Your task to perform on an android device: Go to sound settings Image 0: 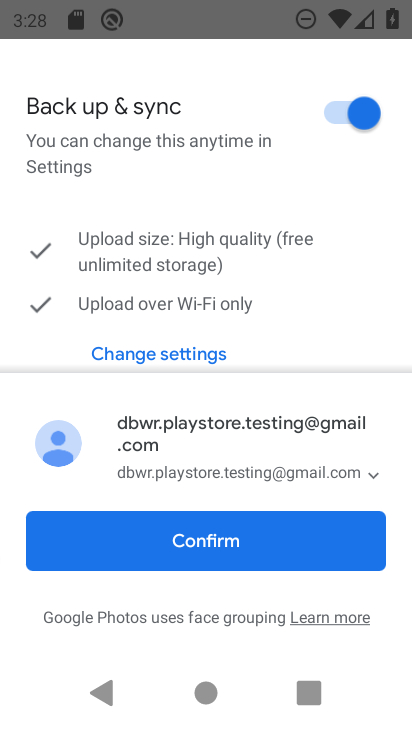
Step 0: press home button
Your task to perform on an android device: Go to sound settings Image 1: 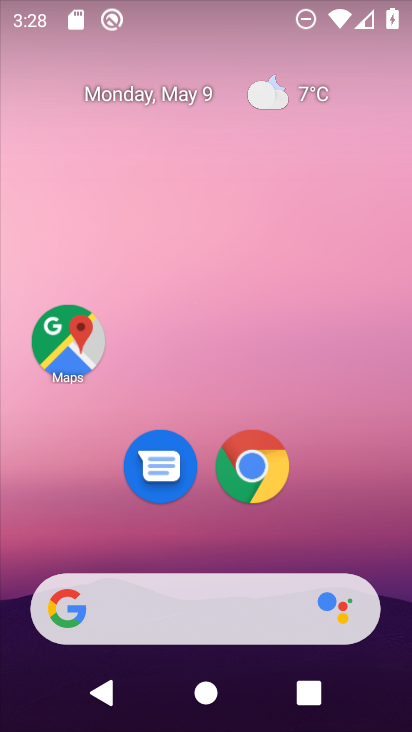
Step 1: drag from (6, 723) to (319, 189)
Your task to perform on an android device: Go to sound settings Image 2: 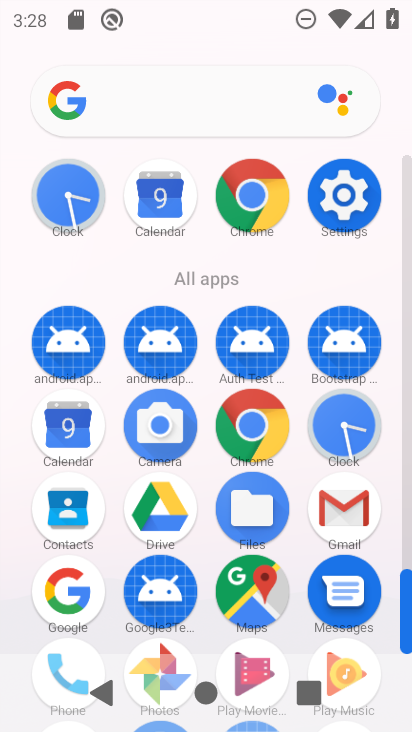
Step 2: click (329, 209)
Your task to perform on an android device: Go to sound settings Image 3: 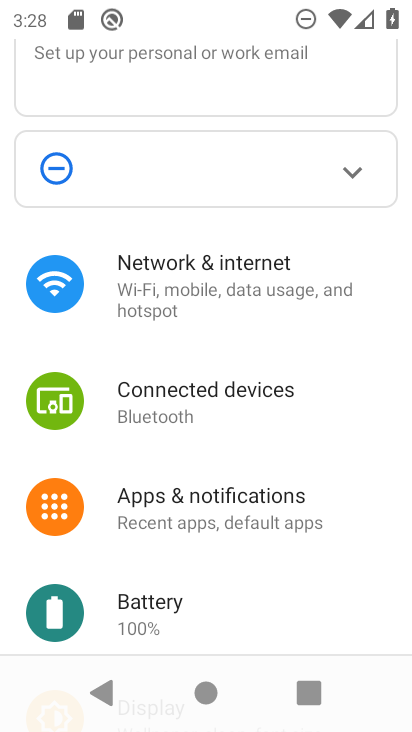
Step 3: drag from (194, 580) to (329, 246)
Your task to perform on an android device: Go to sound settings Image 4: 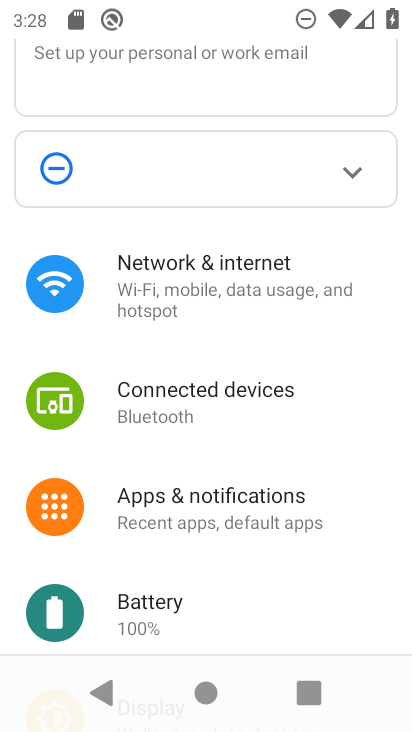
Step 4: drag from (106, 558) to (301, 190)
Your task to perform on an android device: Go to sound settings Image 5: 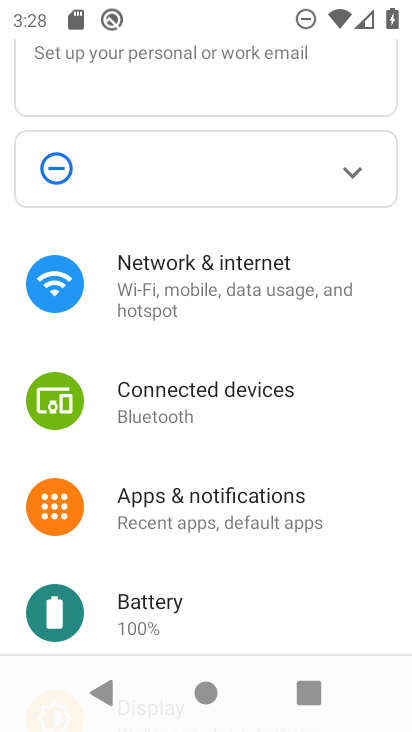
Step 5: drag from (47, 524) to (218, 242)
Your task to perform on an android device: Go to sound settings Image 6: 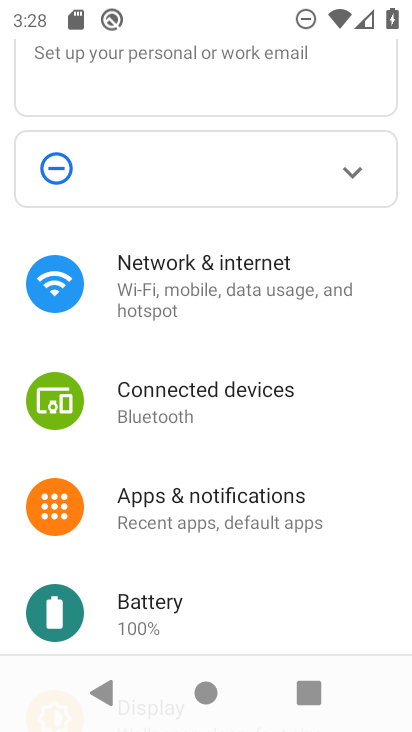
Step 6: drag from (106, 629) to (310, 245)
Your task to perform on an android device: Go to sound settings Image 7: 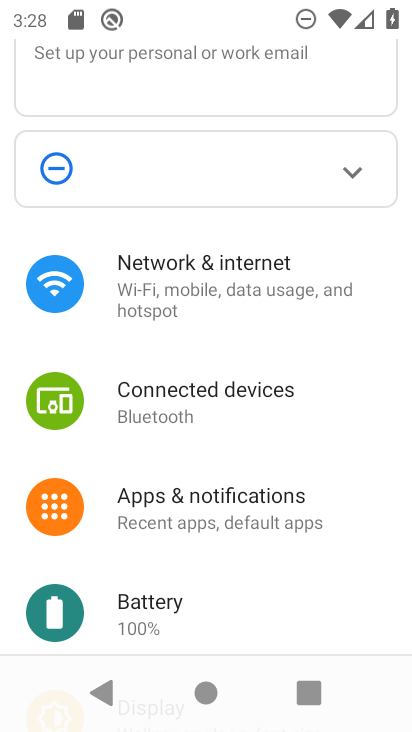
Step 7: drag from (157, 580) to (314, 159)
Your task to perform on an android device: Go to sound settings Image 8: 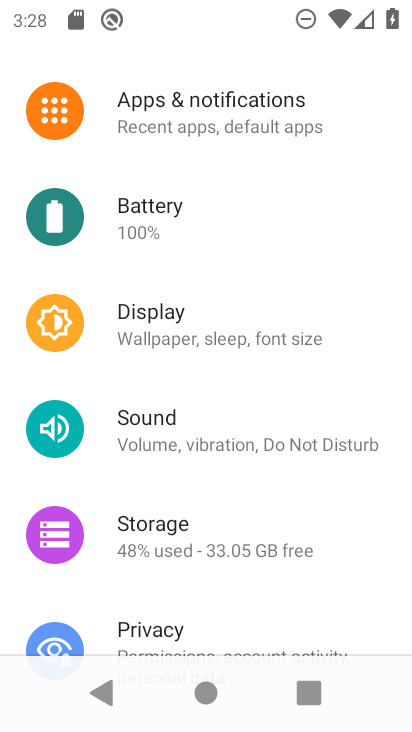
Step 8: click (179, 421)
Your task to perform on an android device: Go to sound settings Image 9: 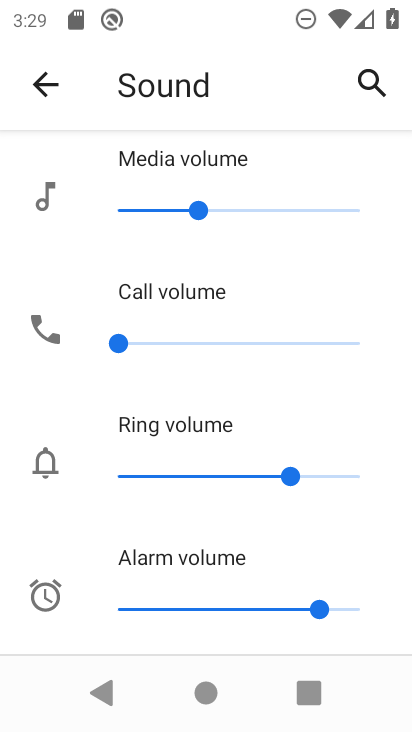
Step 9: task complete